Your task to perform on an android device: change notification settings in the gmail app Image 0: 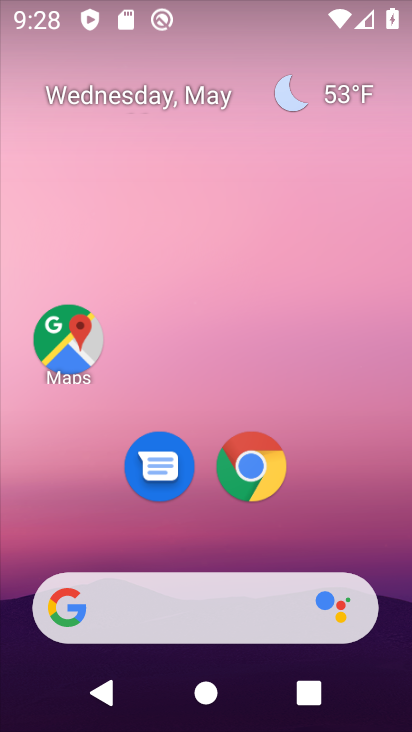
Step 0: click (338, 214)
Your task to perform on an android device: change notification settings in the gmail app Image 1: 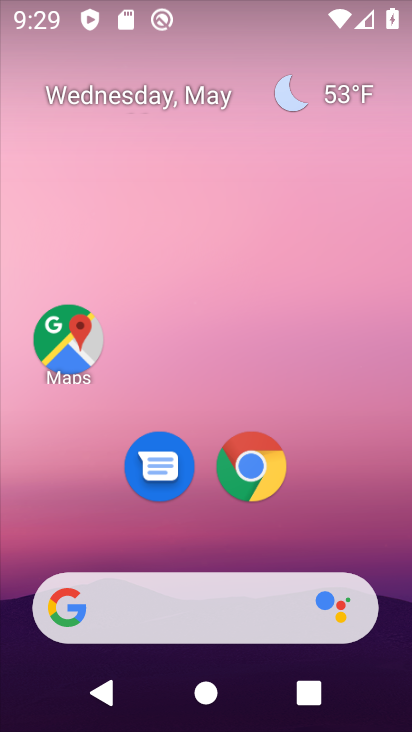
Step 1: drag from (208, 560) to (269, 275)
Your task to perform on an android device: change notification settings in the gmail app Image 2: 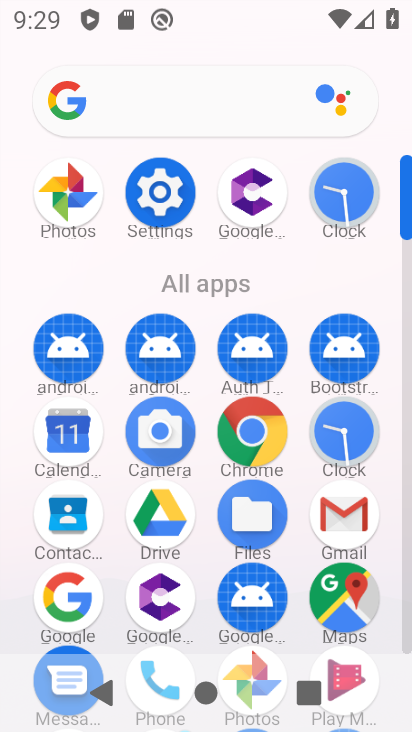
Step 2: click (355, 521)
Your task to perform on an android device: change notification settings in the gmail app Image 3: 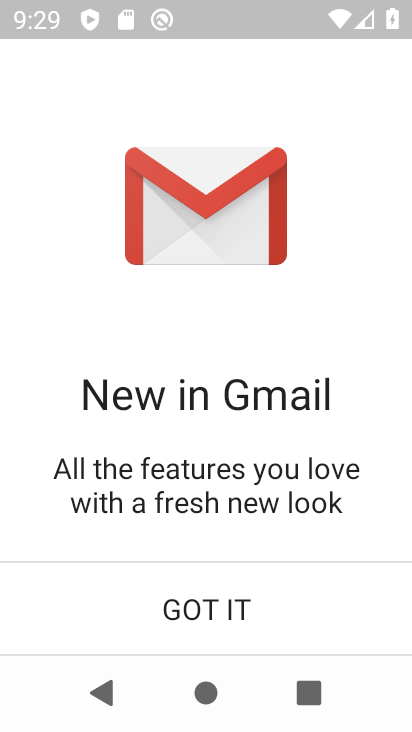
Step 3: click (204, 609)
Your task to perform on an android device: change notification settings in the gmail app Image 4: 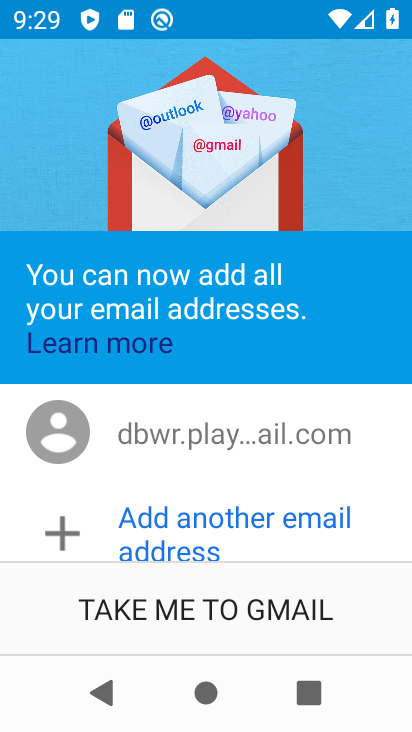
Step 4: click (191, 610)
Your task to perform on an android device: change notification settings in the gmail app Image 5: 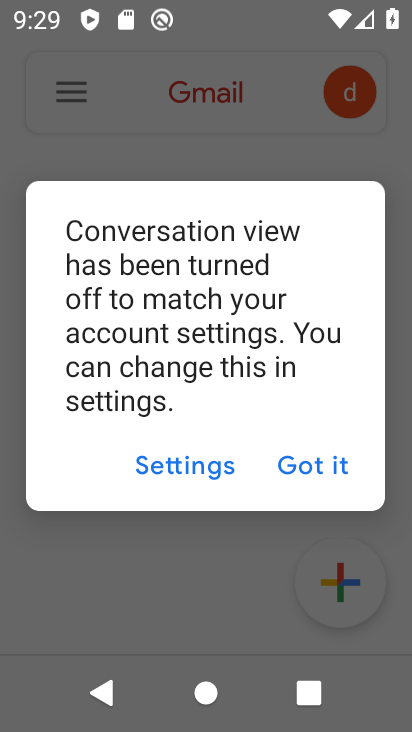
Step 5: click (314, 454)
Your task to perform on an android device: change notification settings in the gmail app Image 6: 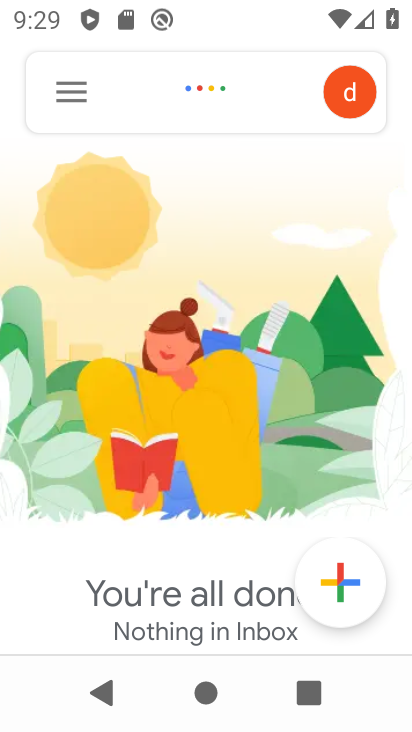
Step 6: click (64, 85)
Your task to perform on an android device: change notification settings in the gmail app Image 7: 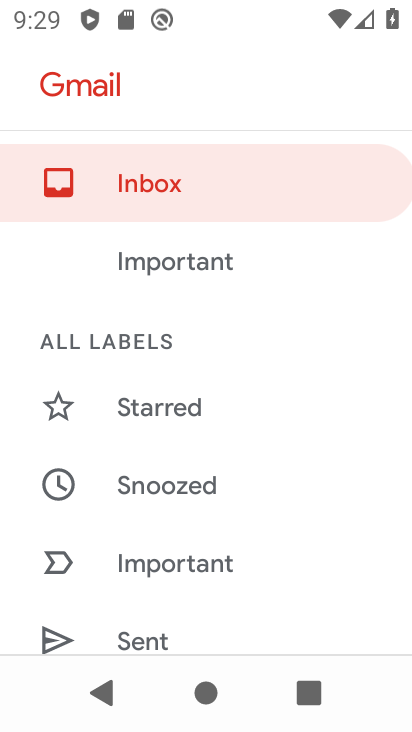
Step 7: drag from (226, 516) to (235, 71)
Your task to perform on an android device: change notification settings in the gmail app Image 8: 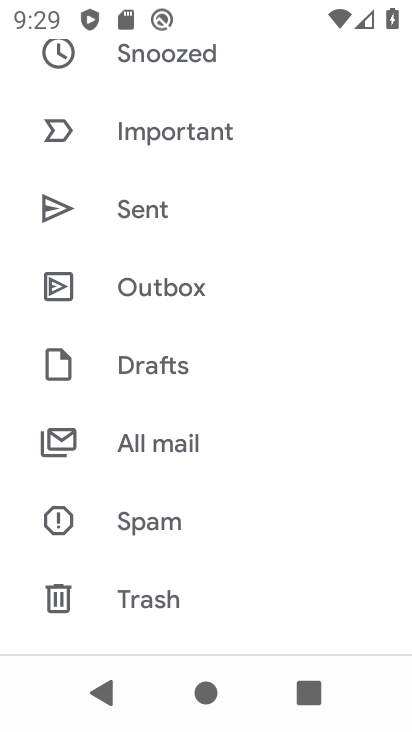
Step 8: drag from (214, 629) to (290, 154)
Your task to perform on an android device: change notification settings in the gmail app Image 9: 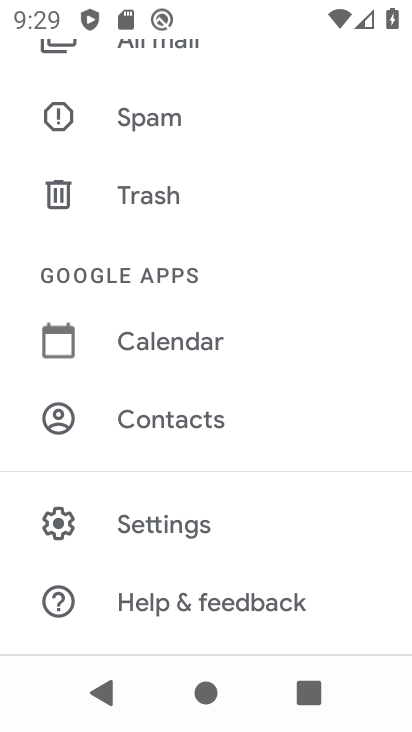
Step 9: click (203, 529)
Your task to perform on an android device: change notification settings in the gmail app Image 10: 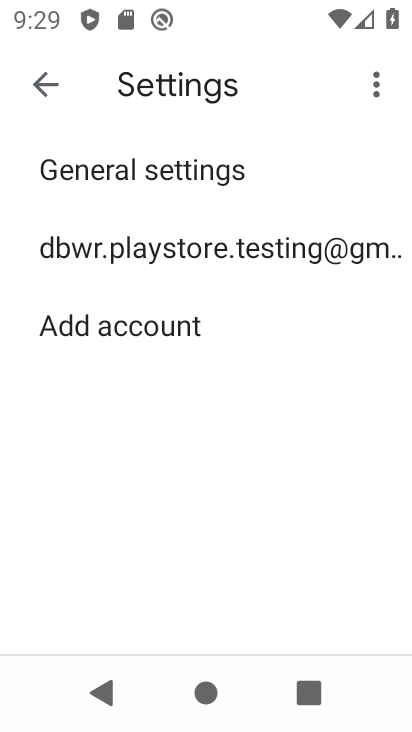
Step 10: click (169, 252)
Your task to perform on an android device: change notification settings in the gmail app Image 11: 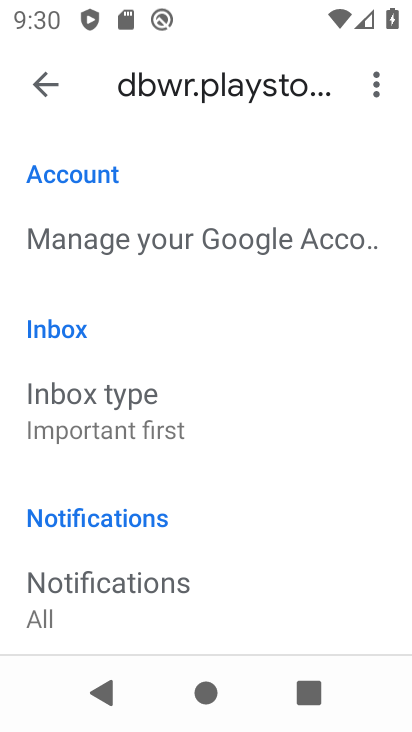
Step 11: drag from (238, 553) to (288, 151)
Your task to perform on an android device: change notification settings in the gmail app Image 12: 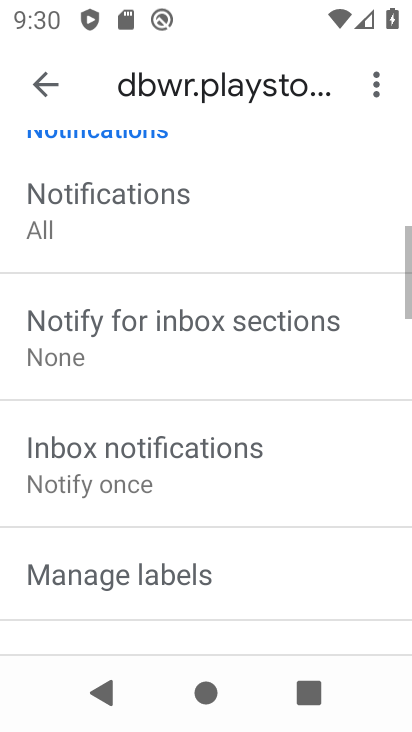
Step 12: drag from (207, 397) to (224, 190)
Your task to perform on an android device: change notification settings in the gmail app Image 13: 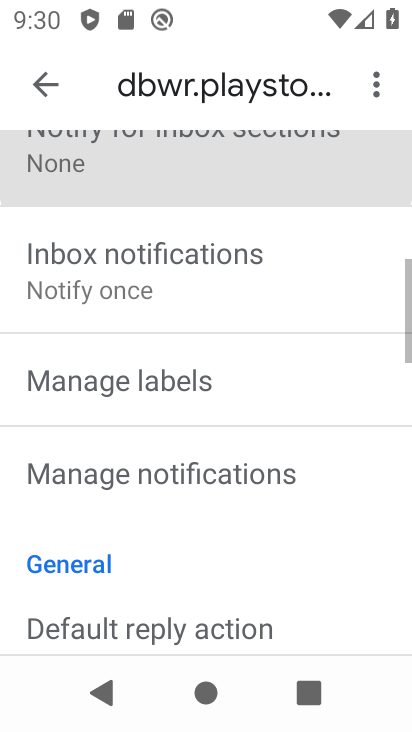
Step 13: drag from (232, 551) to (232, 331)
Your task to perform on an android device: change notification settings in the gmail app Image 14: 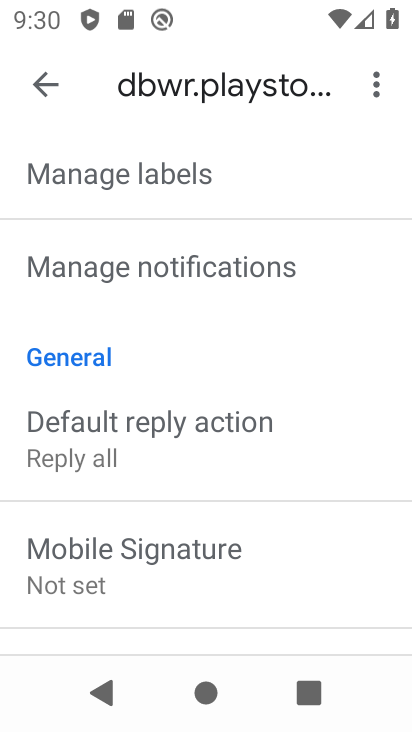
Step 14: click (194, 256)
Your task to perform on an android device: change notification settings in the gmail app Image 15: 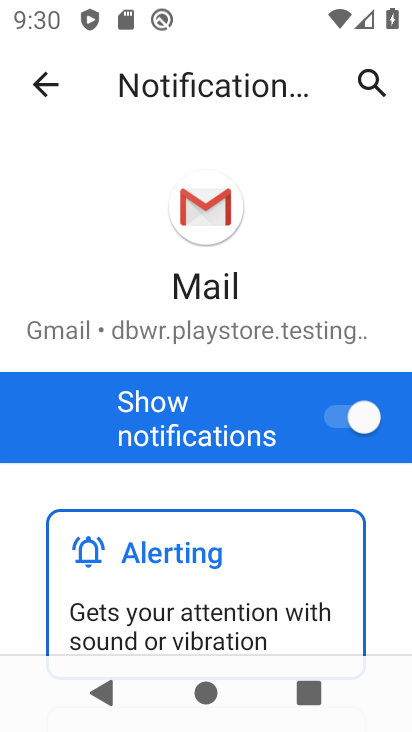
Step 15: drag from (259, 599) to (297, 243)
Your task to perform on an android device: change notification settings in the gmail app Image 16: 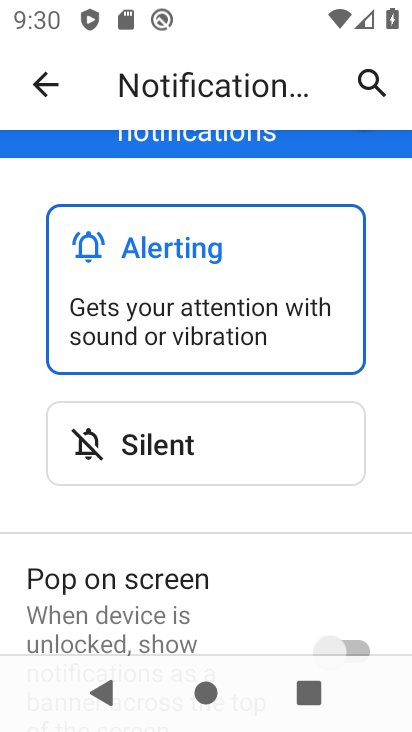
Step 16: drag from (251, 597) to (291, 251)
Your task to perform on an android device: change notification settings in the gmail app Image 17: 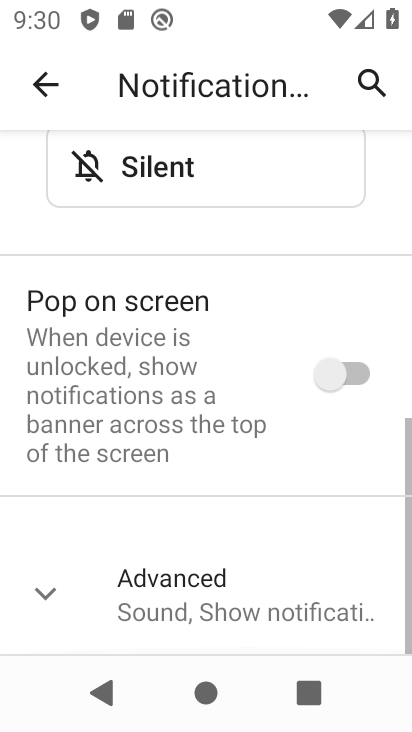
Step 17: drag from (244, 632) to (337, 269)
Your task to perform on an android device: change notification settings in the gmail app Image 18: 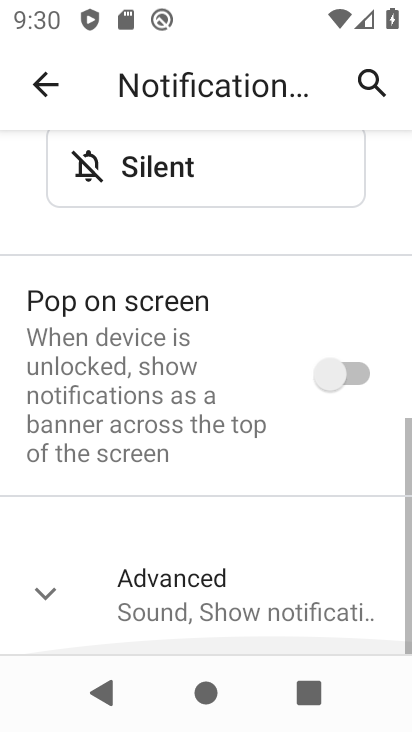
Step 18: drag from (330, 245) to (324, 712)
Your task to perform on an android device: change notification settings in the gmail app Image 19: 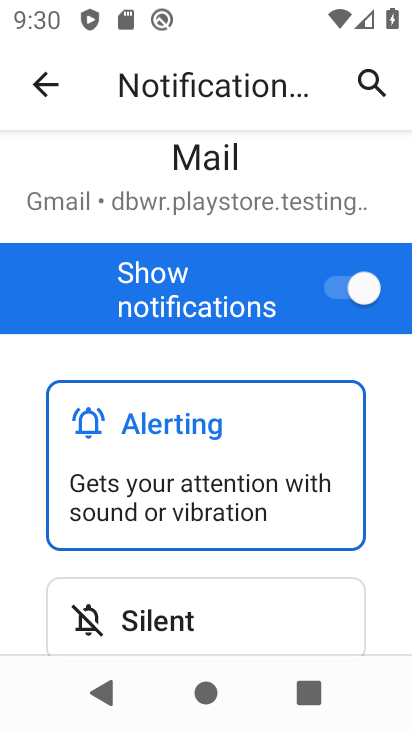
Step 19: click (361, 296)
Your task to perform on an android device: change notification settings in the gmail app Image 20: 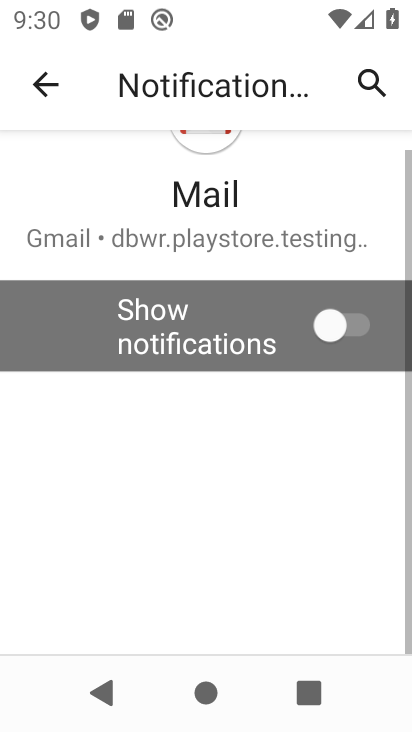
Step 20: task complete